Your task to perform on an android device: turn notification dots off Image 0: 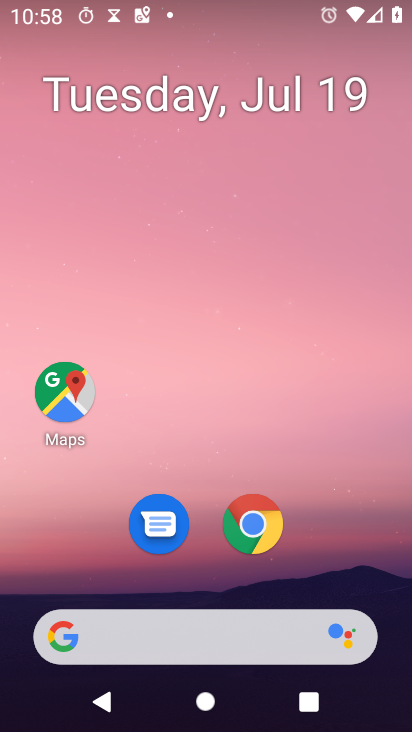
Step 0: drag from (213, 607) to (317, 182)
Your task to perform on an android device: turn notification dots off Image 1: 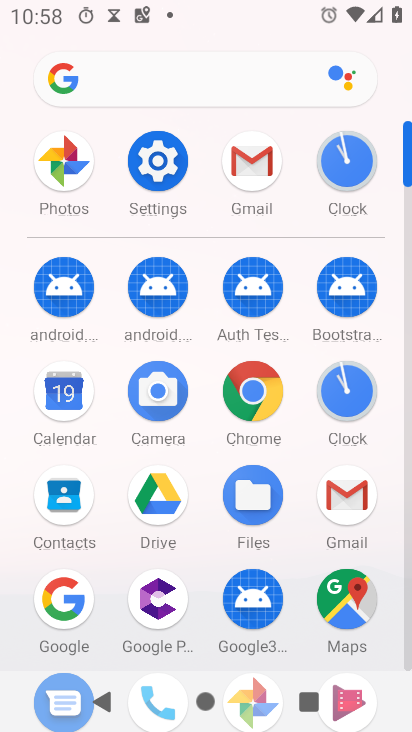
Step 1: click (162, 165)
Your task to perform on an android device: turn notification dots off Image 2: 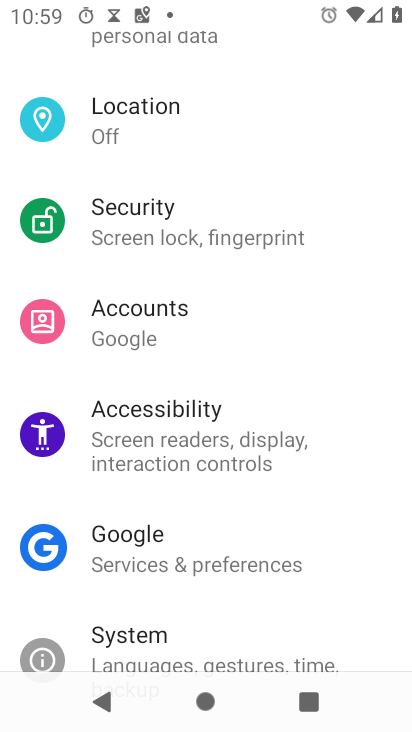
Step 2: drag from (243, 476) to (221, 532)
Your task to perform on an android device: turn notification dots off Image 3: 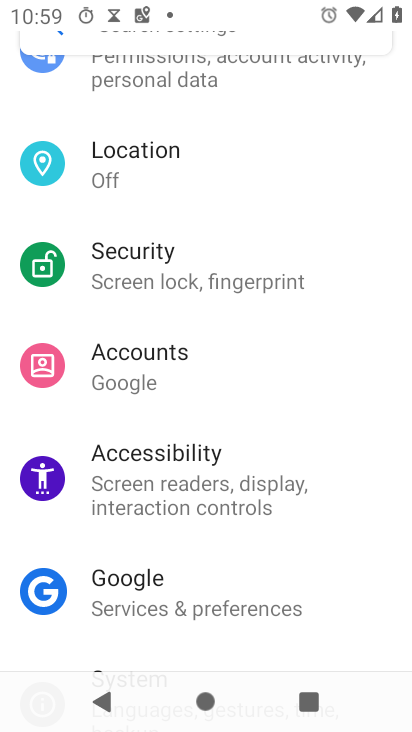
Step 3: drag from (226, 164) to (179, 502)
Your task to perform on an android device: turn notification dots off Image 4: 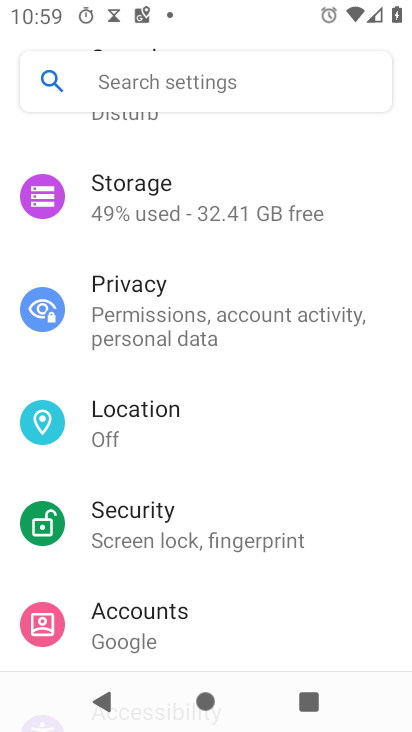
Step 4: drag from (240, 437) to (198, 584)
Your task to perform on an android device: turn notification dots off Image 5: 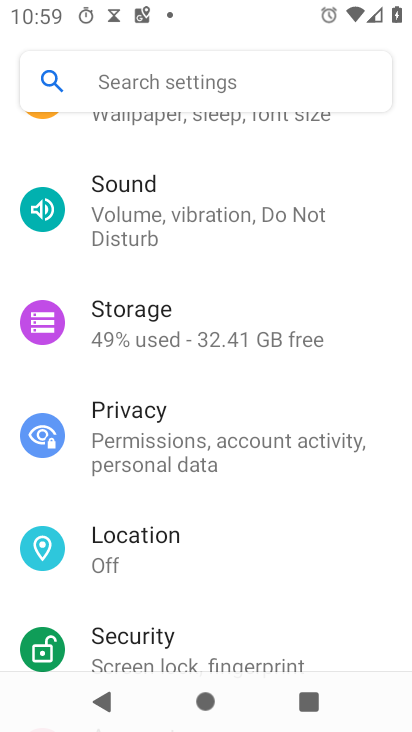
Step 5: drag from (257, 154) to (202, 602)
Your task to perform on an android device: turn notification dots off Image 6: 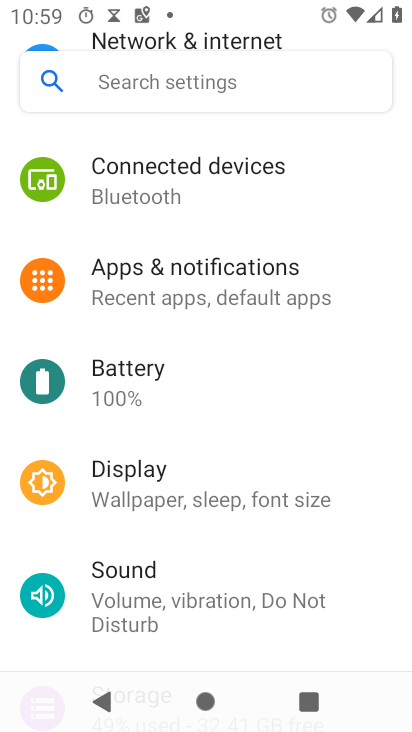
Step 6: click (225, 284)
Your task to perform on an android device: turn notification dots off Image 7: 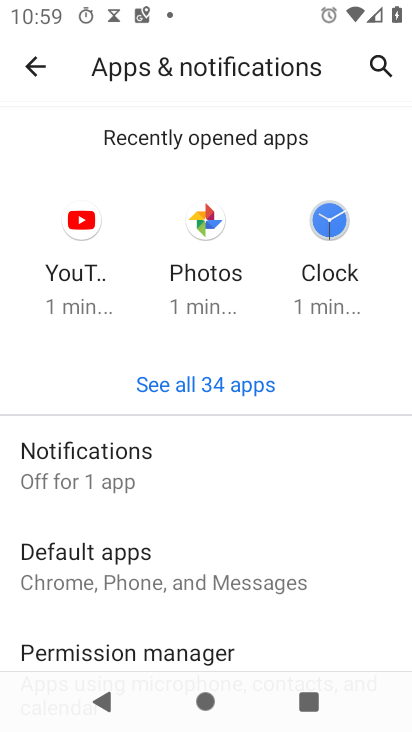
Step 7: click (111, 466)
Your task to perform on an android device: turn notification dots off Image 8: 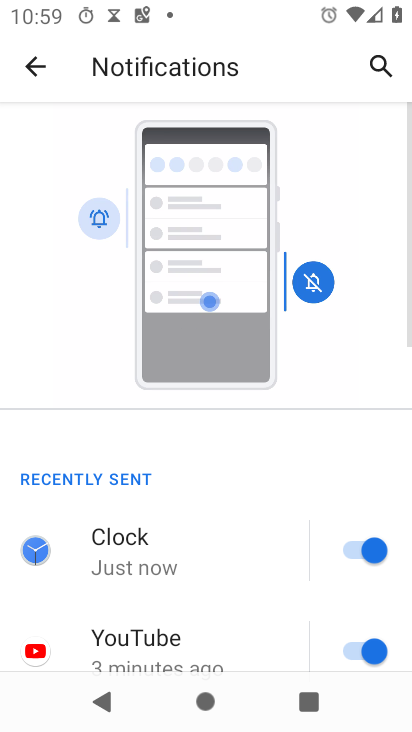
Step 8: drag from (206, 585) to (244, 65)
Your task to perform on an android device: turn notification dots off Image 9: 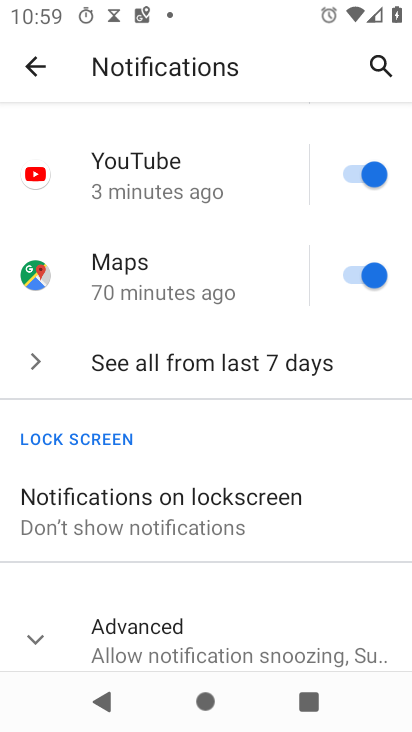
Step 9: drag from (174, 573) to (249, 179)
Your task to perform on an android device: turn notification dots off Image 10: 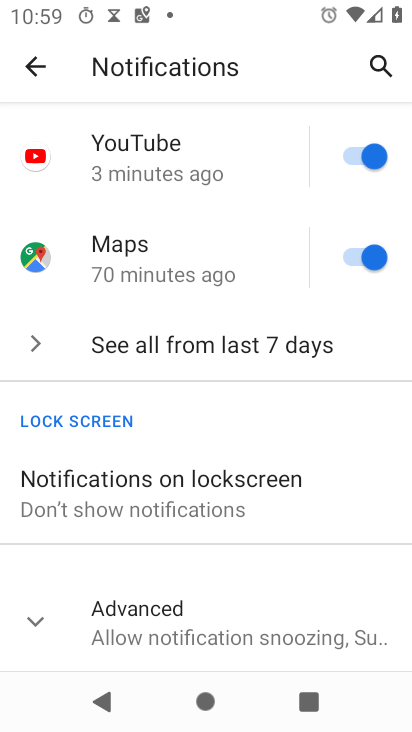
Step 10: click (147, 607)
Your task to perform on an android device: turn notification dots off Image 11: 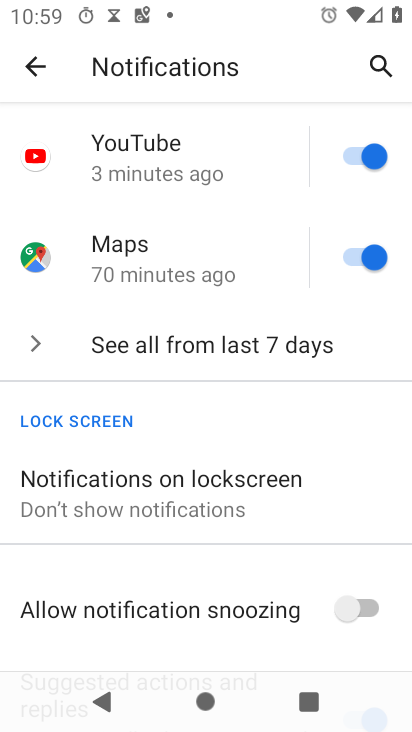
Step 11: task complete